Your task to perform on an android device: open a new tab in the chrome app Image 0: 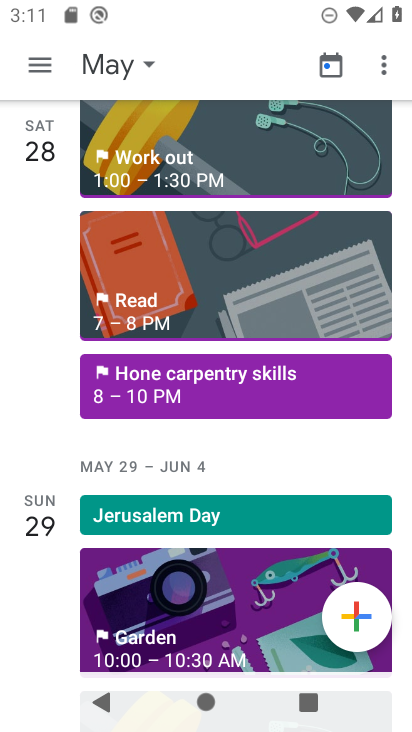
Step 0: press home button
Your task to perform on an android device: open a new tab in the chrome app Image 1: 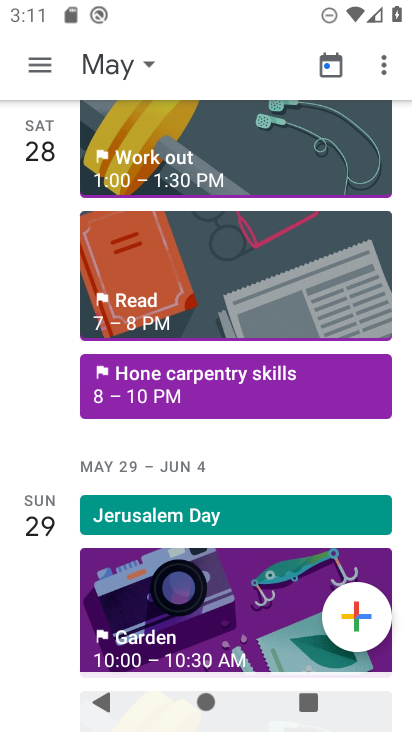
Step 1: press home button
Your task to perform on an android device: open a new tab in the chrome app Image 2: 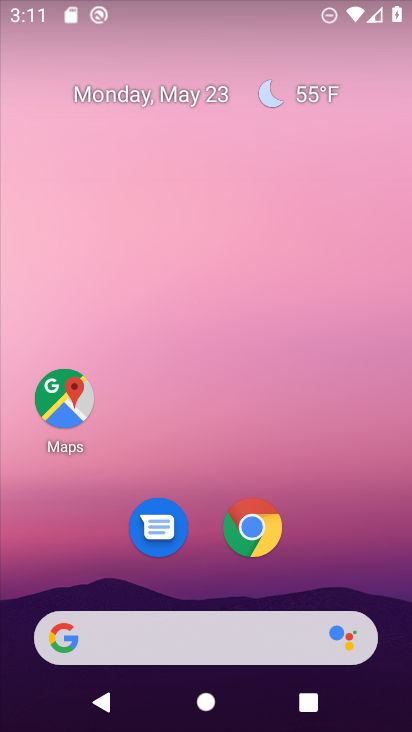
Step 2: click (249, 522)
Your task to perform on an android device: open a new tab in the chrome app Image 3: 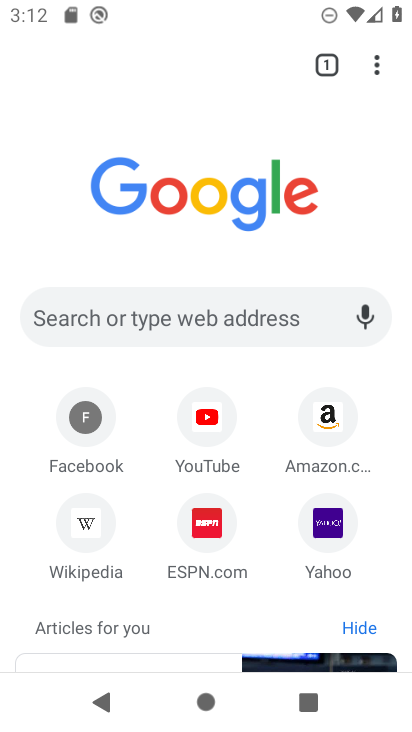
Step 3: click (322, 62)
Your task to perform on an android device: open a new tab in the chrome app Image 4: 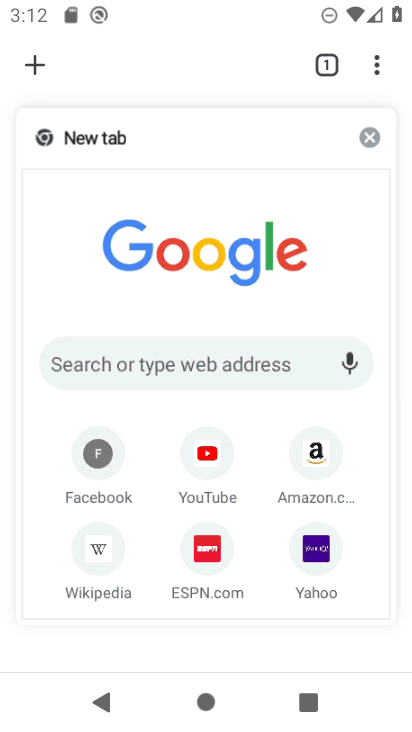
Step 4: click (41, 63)
Your task to perform on an android device: open a new tab in the chrome app Image 5: 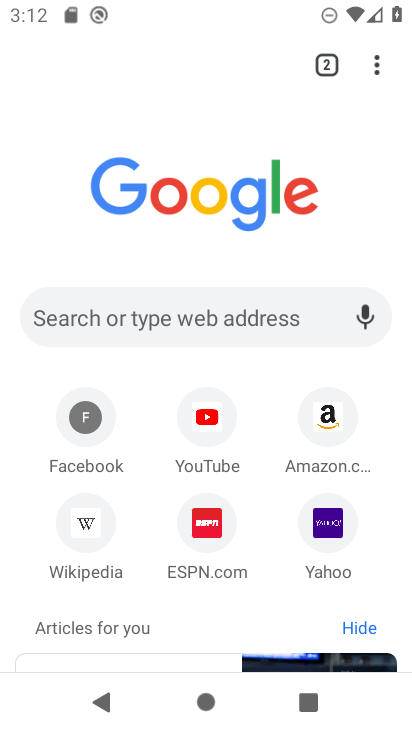
Step 5: task complete